Your task to perform on an android device: turn off notifications settings in the gmail app Image 0: 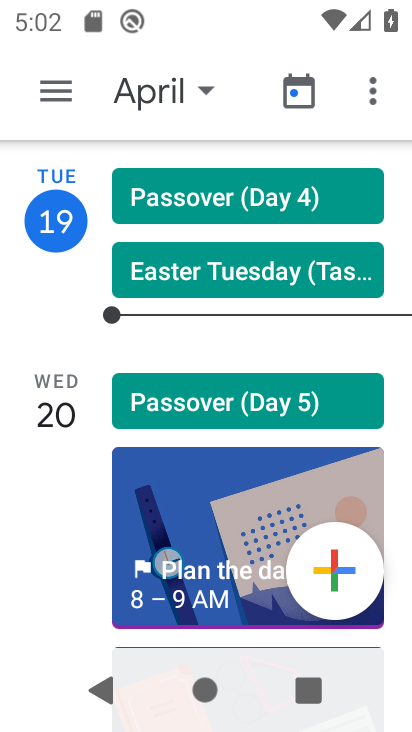
Step 0: press home button
Your task to perform on an android device: turn off notifications settings in the gmail app Image 1: 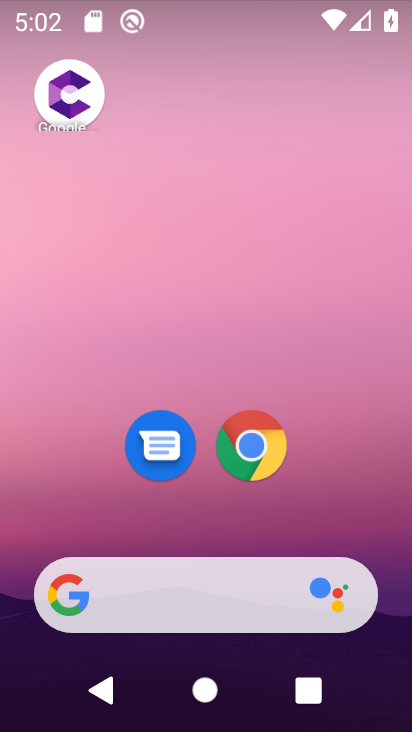
Step 1: drag from (178, 591) to (179, 181)
Your task to perform on an android device: turn off notifications settings in the gmail app Image 2: 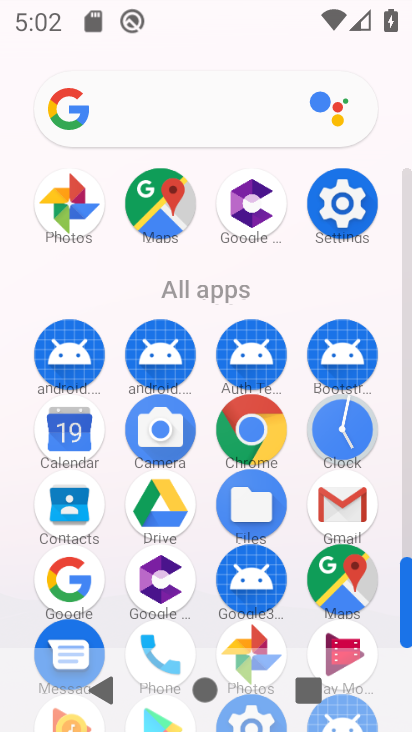
Step 2: click (345, 522)
Your task to perform on an android device: turn off notifications settings in the gmail app Image 3: 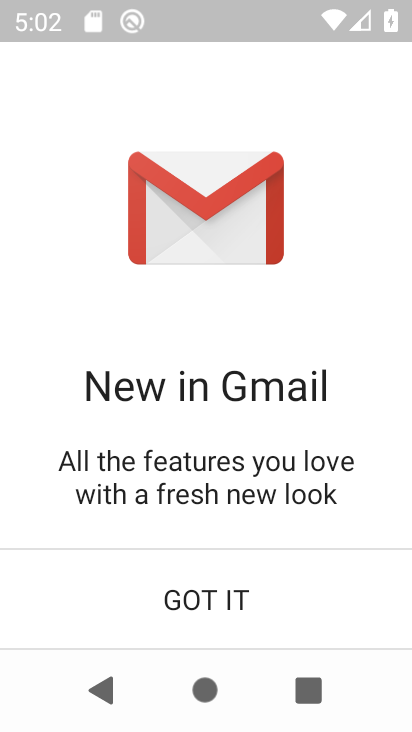
Step 3: click (267, 605)
Your task to perform on an android device: turn off notifications settings in the gmail app Image 4: 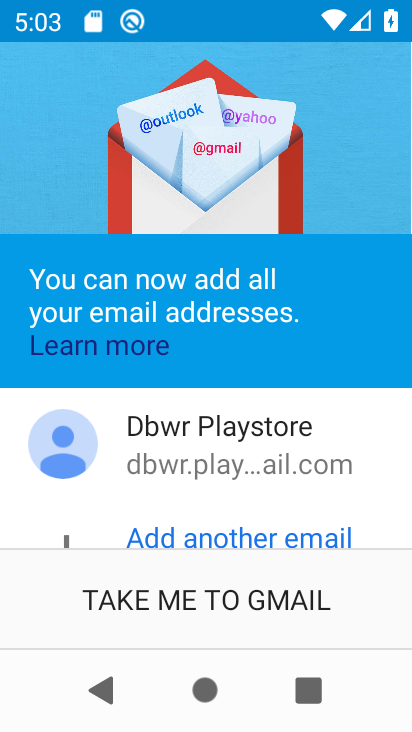
Step 4: click (286, 612)
Your task to perform on an android device: turn off notifications settings in the gmail app Image 5: 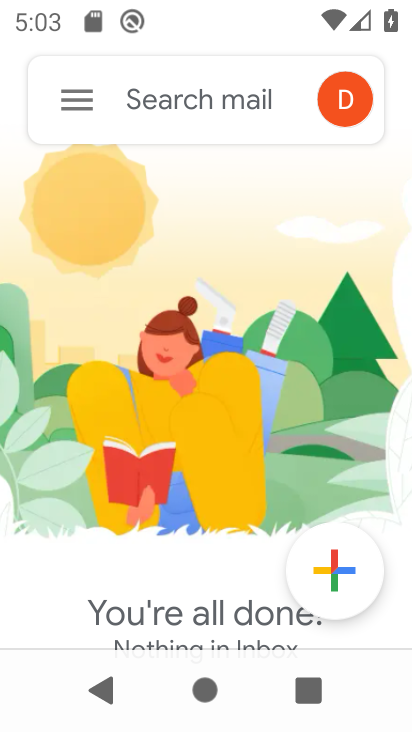
Step 5: click (79, 112)
Your task to perform on an android device: turn off notifications settings in the gmail app Image 6: 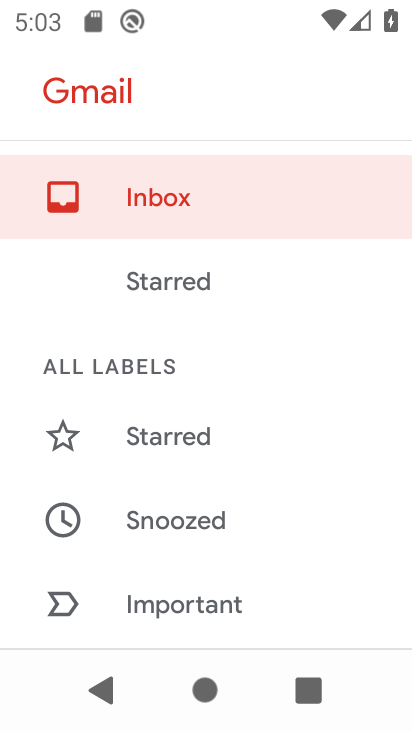
Step 6: drag from (184, 533) to (159, 139)
Your task to perform on an android device: turn off notifications settings in the gmail app Image 7: 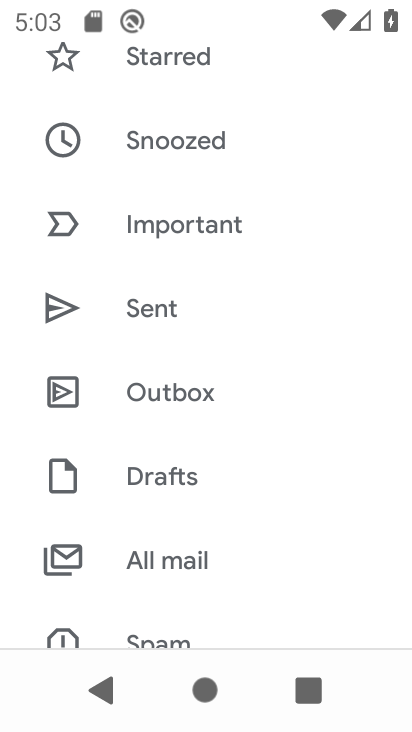
Step 7: drag from (208, 510) to (183, 127)
Your task to perform on an android device: turn off notifications settings in the gmail app Image 8: 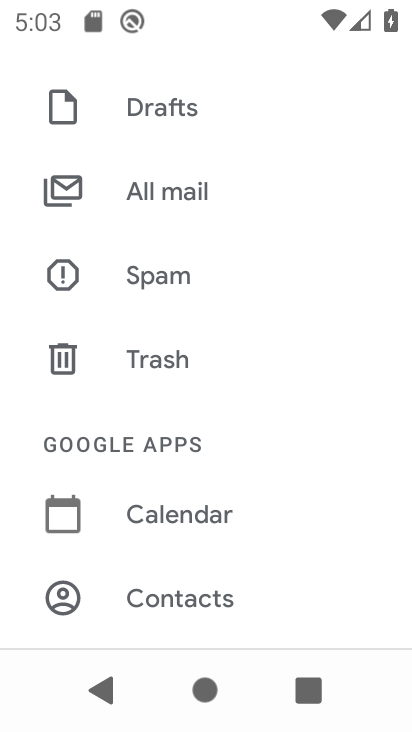
Step 8: drag from (215, 556) to (171, 55)
Your task to perform on an android device: turn off notifications settings in the gmail app Image 9: 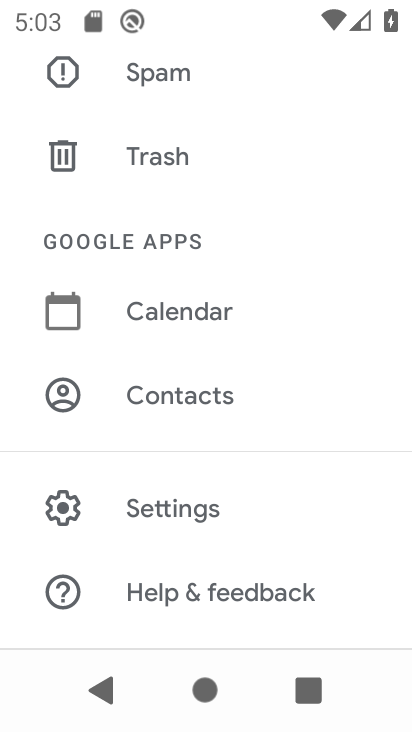
Step 9: click (229, 512)
Your task to perform on an android device: turn off notifications settings in the gmail app Image 10: 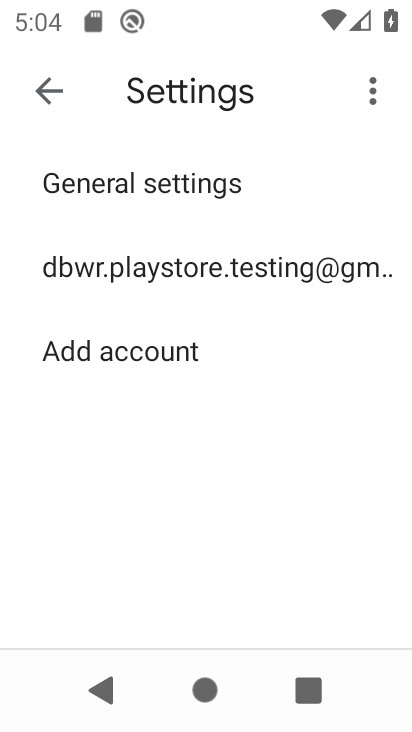
Step 10: click (143, 279)
Your task to perform on an android device: turn off notifications settings in the gmail app Image 11: 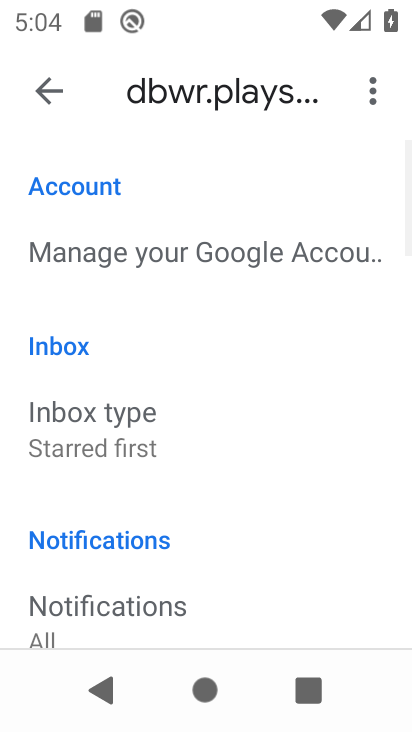
Step 11: click (61, 77)
Your task to perform on an android device: turn off notifications settings in the gmail app Image 12: 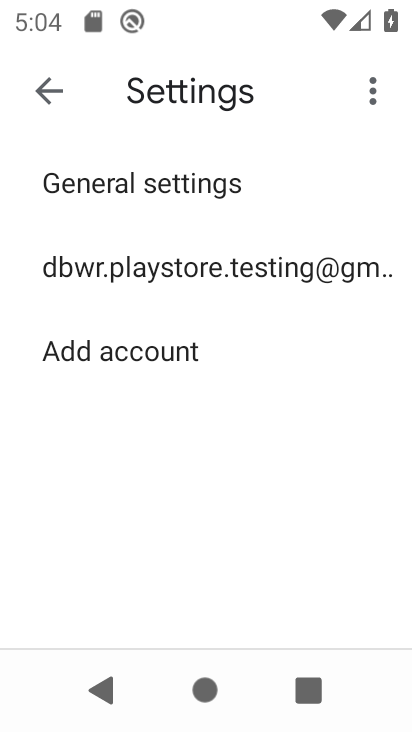
Step 12: click (138, 187)
Your task to perform on an android device: turn off notifications settings in the gmail app Image 13: 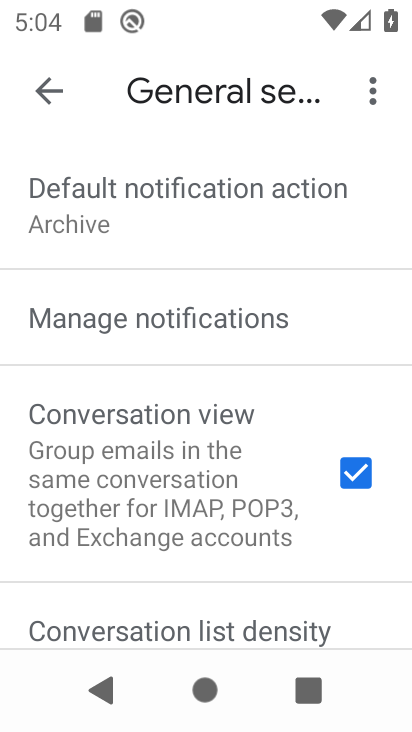
Step 13: click (212, 345)
Your task to perform on an android device: turn off notifications settings in the gmail app Image 14: 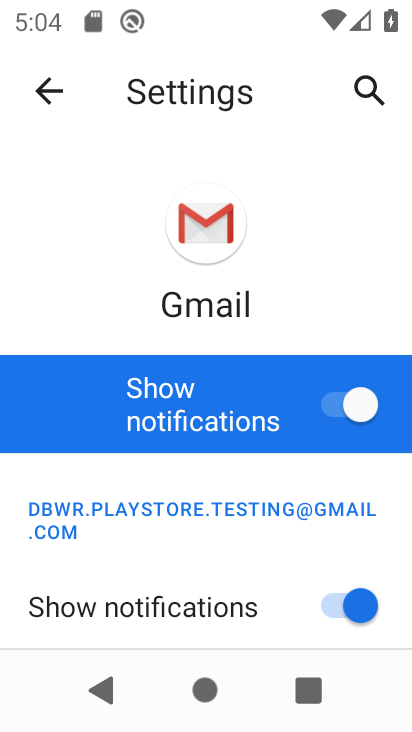
Step 14: click (323, 403)
Your task to perform on an android device: turn off notifications settings in the gmail app Image 15: 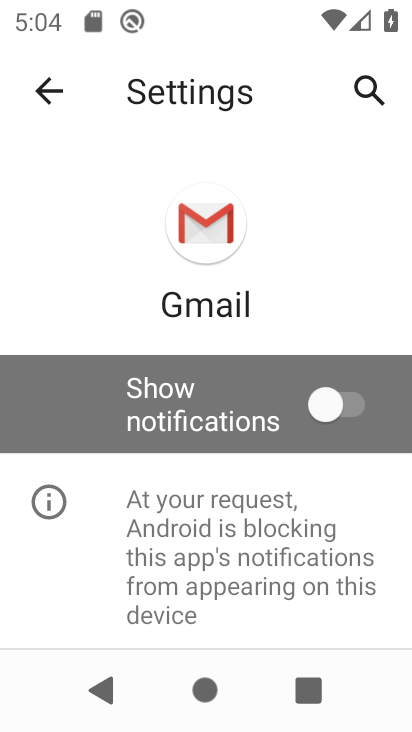
Step 15: task complete